Your task to perform on an android device: all mails in gmail Image 0: 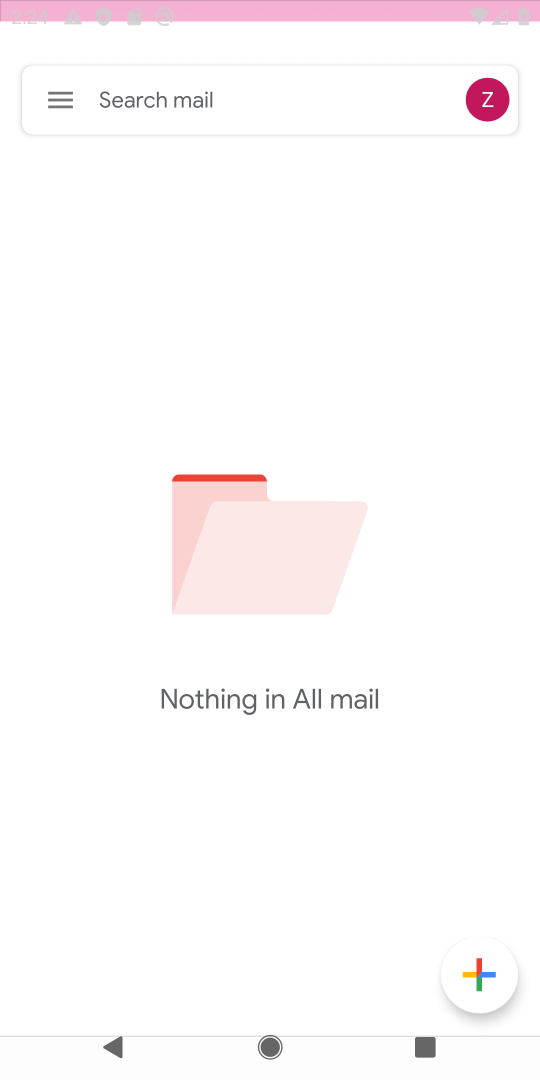
Step 0: press back button
Your task to perform on an android device: all mails in gmail Image 1: 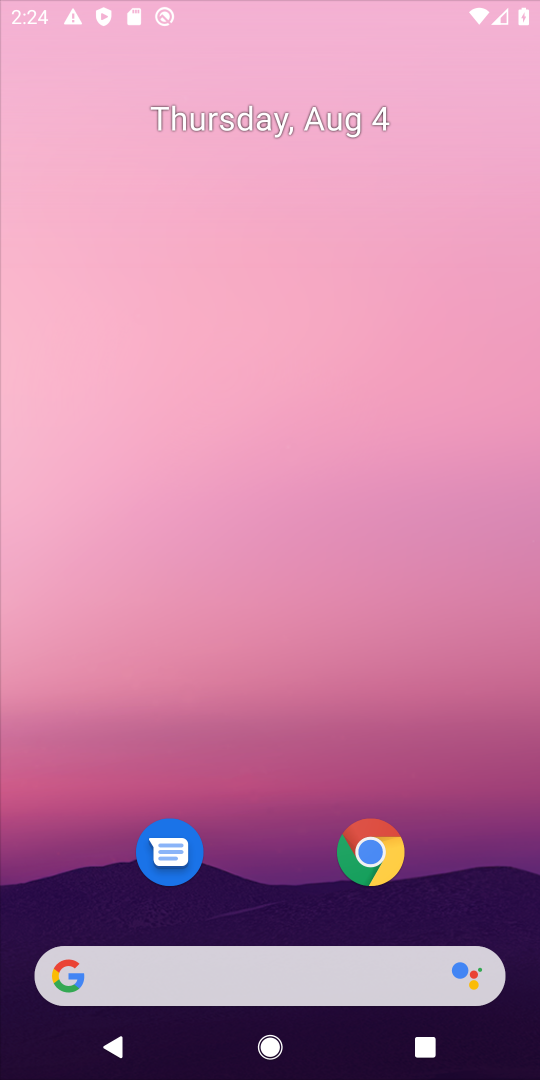
Step 1: press back button
Your task to perform on an android device: all mails in gmail Image 2: 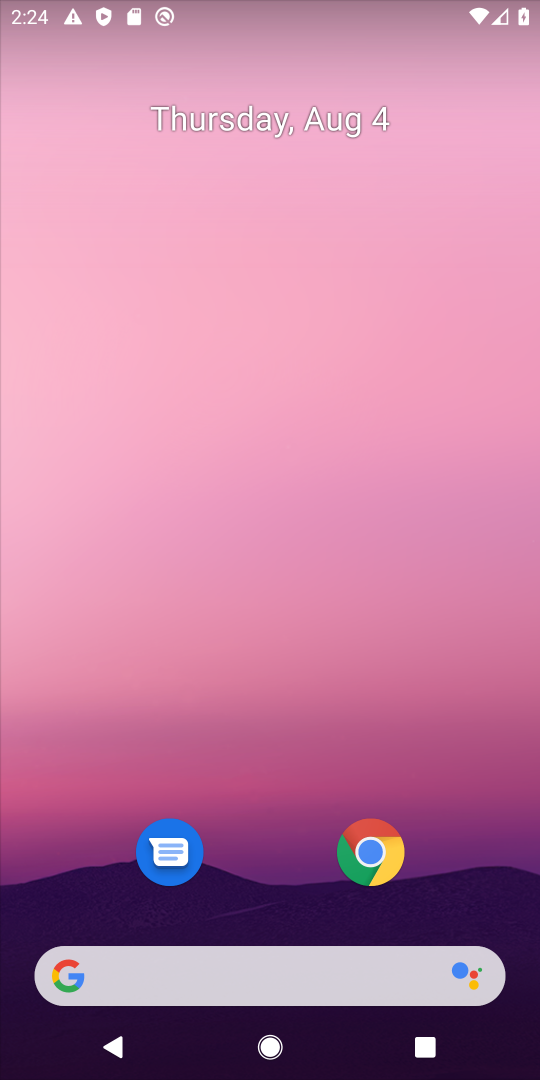
Step 2: drag from (139, 832) to (266, 32)
Your task to perform on an android device: all mails in gmail Image 3: 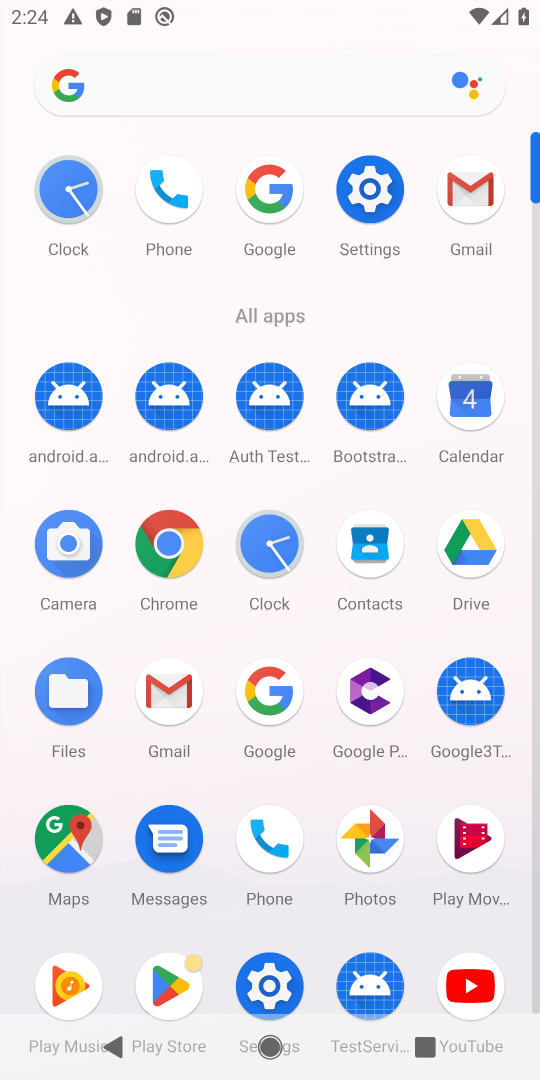
Step 3: click (467, 189)
Your task to perform on an android device: all mails in gmail Image 4: 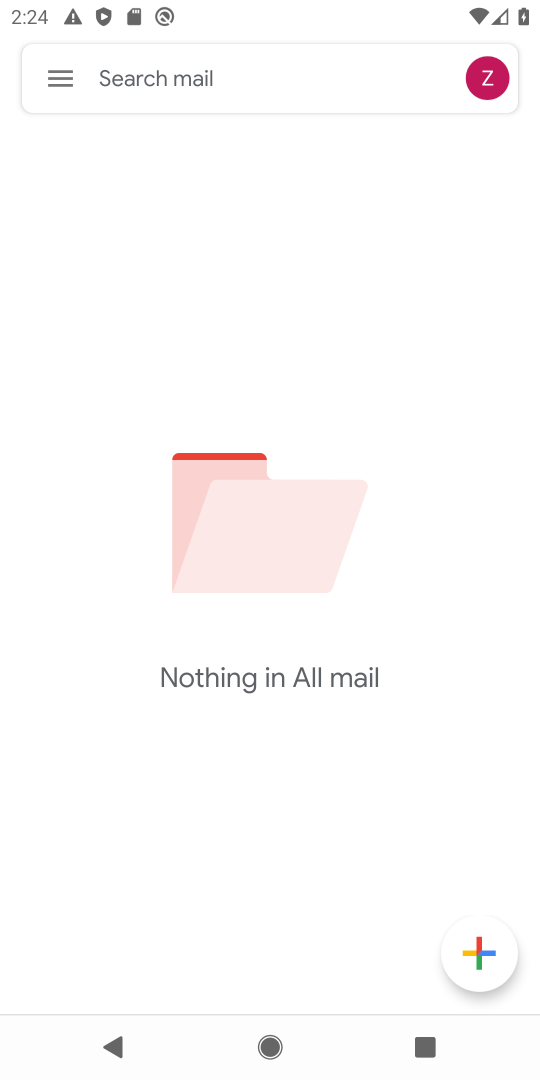
Step 4: task complete